Your task to perform on an android device: turn notification dots off Image 0: 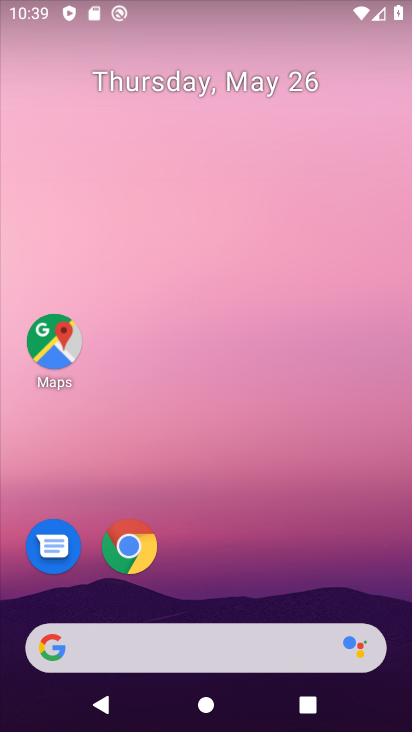
Step 0: drag from (225, 563) to (228, 119)
Your task to perform on an android device: turn notification dots off Image 1: 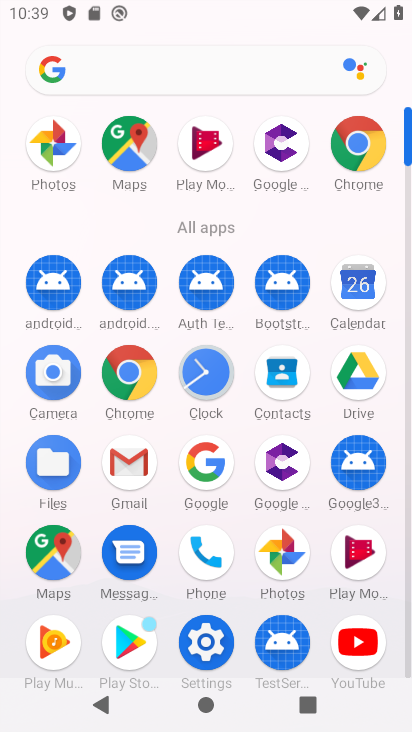
Step 1: click (212, 645)
Your task to perform on an android device: turn notification dots off Image 2: 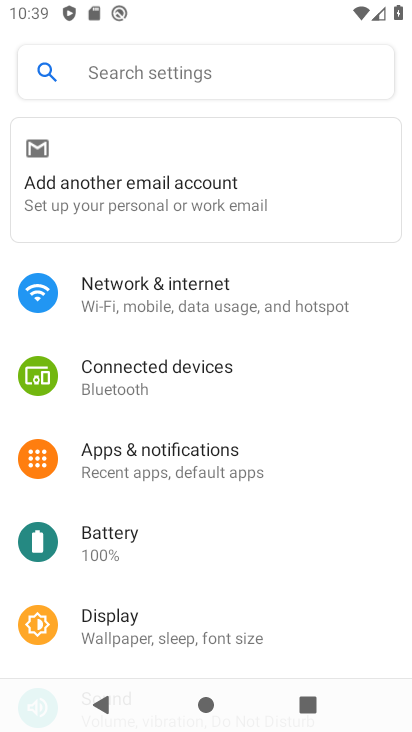
Step 2: click (168, 468)
Your task to perform on an android device: turn notification dots off Image 3: 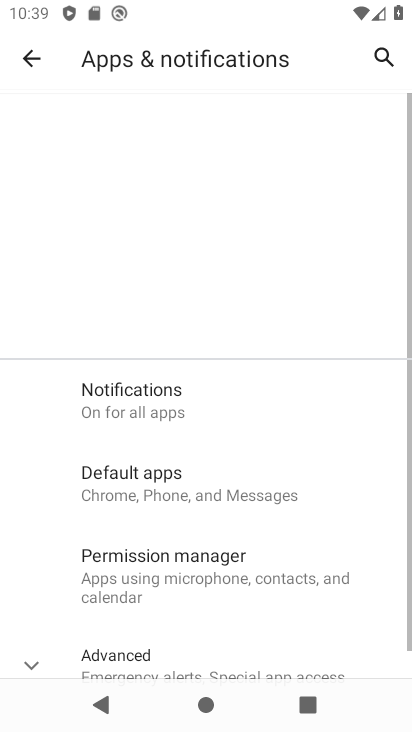
Step 3: click (123, 391)
Your task to perform on an android device: turn notification dots off Image 4: 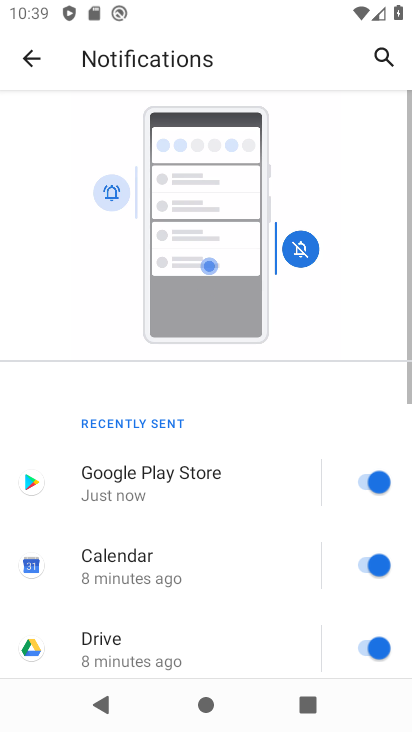
Step 4: drag from (236, 627) to (234, 47)
Your task to perform on an android device: turn notification dots off Image 5: 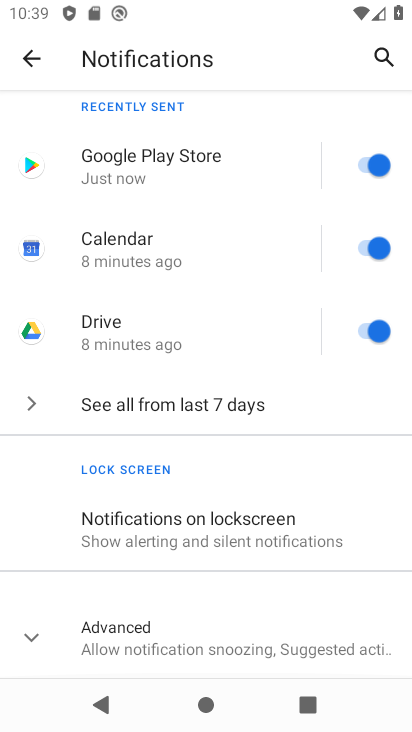
Step 5: click (135, 643)
Your task to perform on an android device: turn notification dots off Image 6: 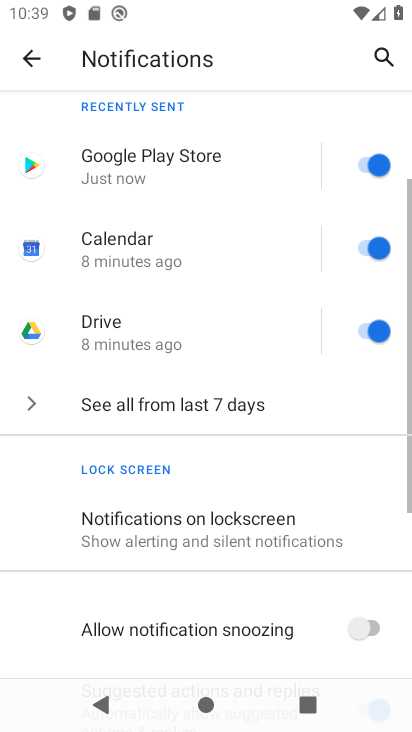
Step 6: drag from (315, 589) to (305, 99)
Your task to perform on an android device: turn notification dots off Image 7: 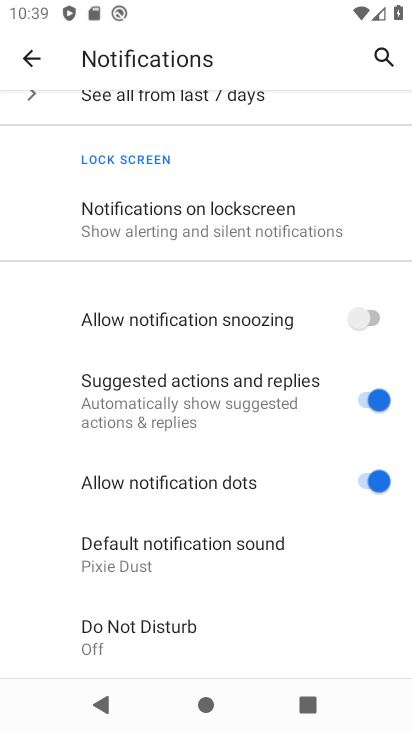
Step 7: click (377, 474)
Your task to perform on an android device: turn notification dots off Image 8: 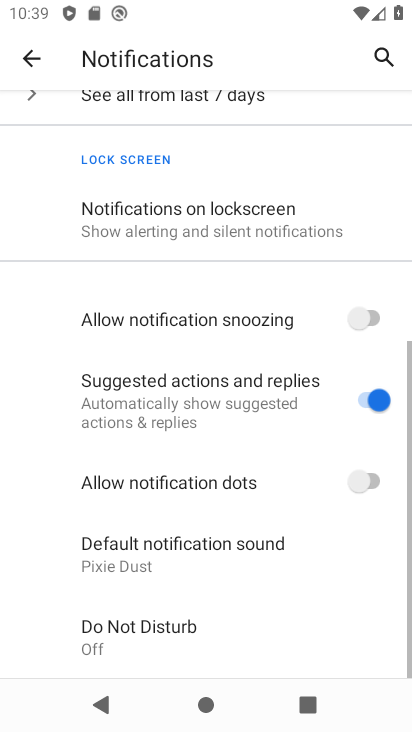
Step 8: task complete